Your task to perform on an android device: Show me productivity apps on the Play Store Image 0: 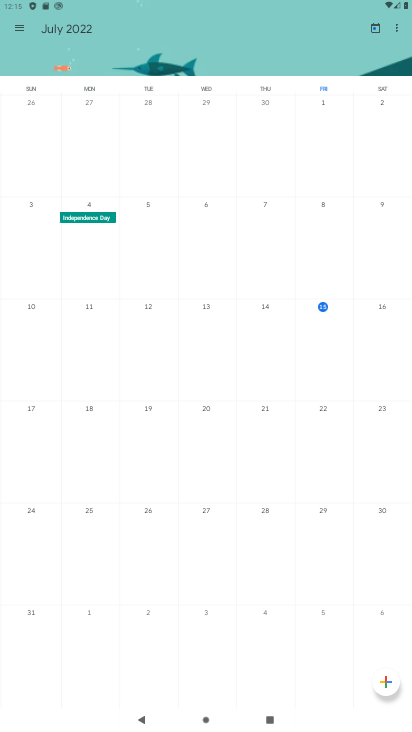
Step 0: press home button
Your task to perform on an android device: Show me productivity apps on the Play Store Image 1: 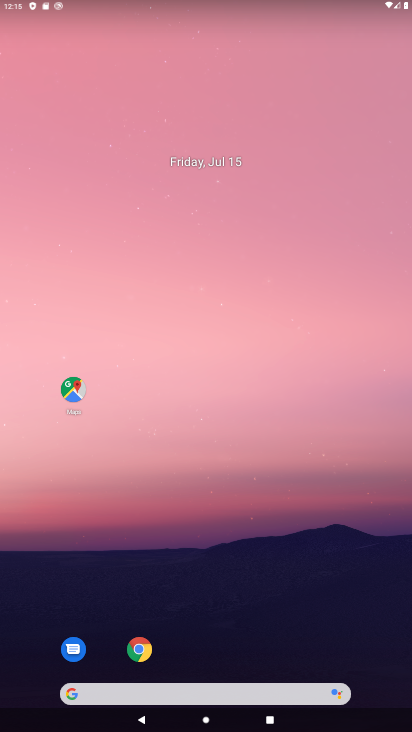
Step 1: drag from (186, 635) to (255, 193)
Your task to perform on an android device: Show me productivity apps on the Play Store Image 2: 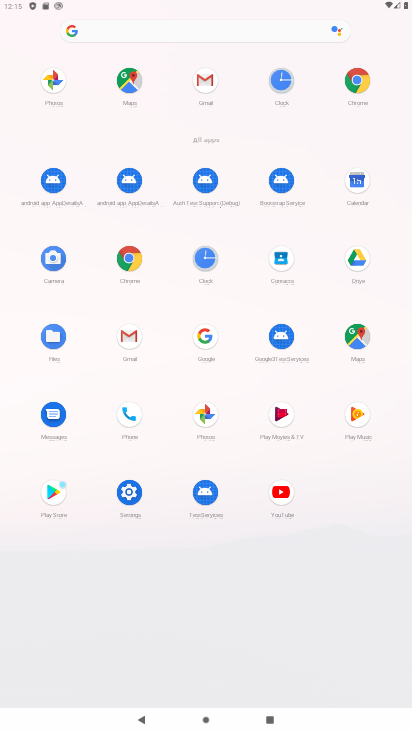
Step 2: click (53, 482)
Your task to perform on an android device: Show me productivity apps on the Play Store Image 3: 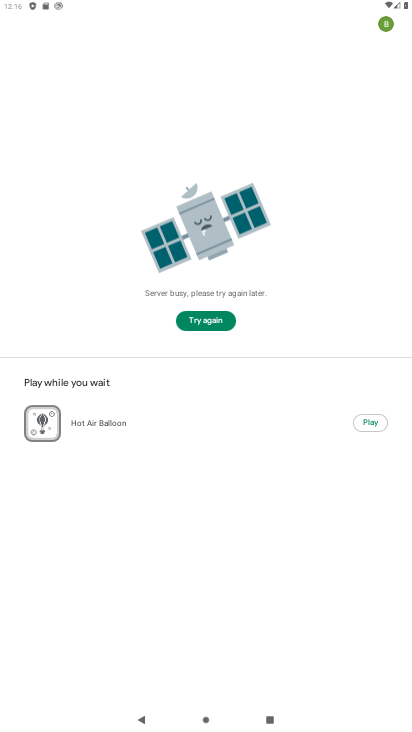
Step 3: task complete